Your task to perform on an android device: change timer sound Image 0: 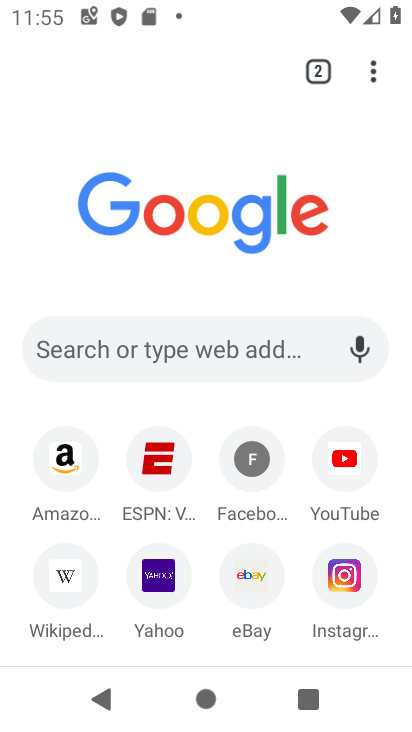
Step 0: click (382, 80)
Your task to perform on an android device: change timer sound Image 1: 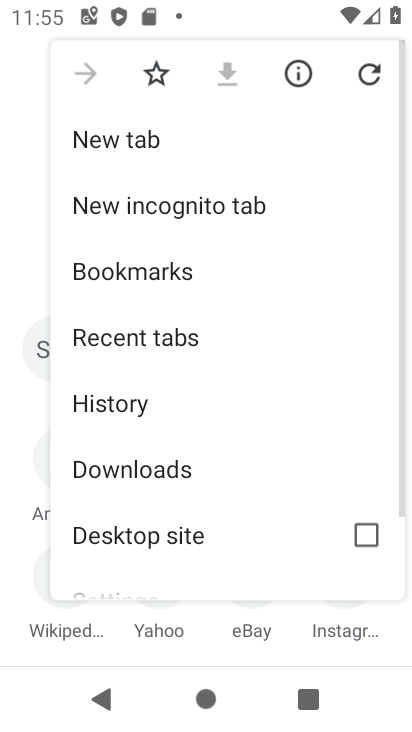
Step 1: drag from (185, 484) to (201, 213)
Your task to perform on an android device: change timer sound Image 2: 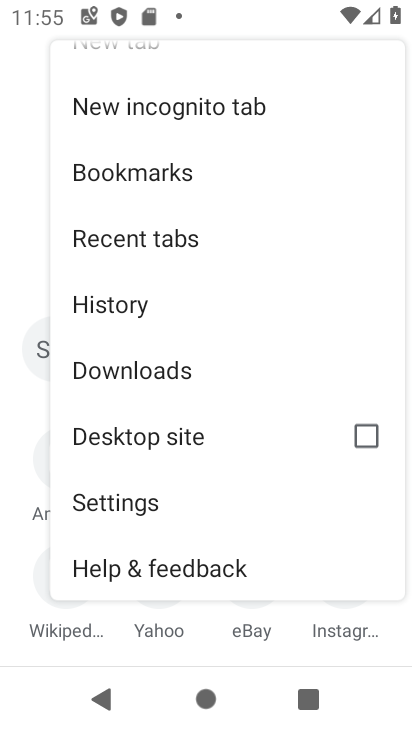
Step 2: click (199, 503)
Your task to perform on an android device: change timer sound Image 3: 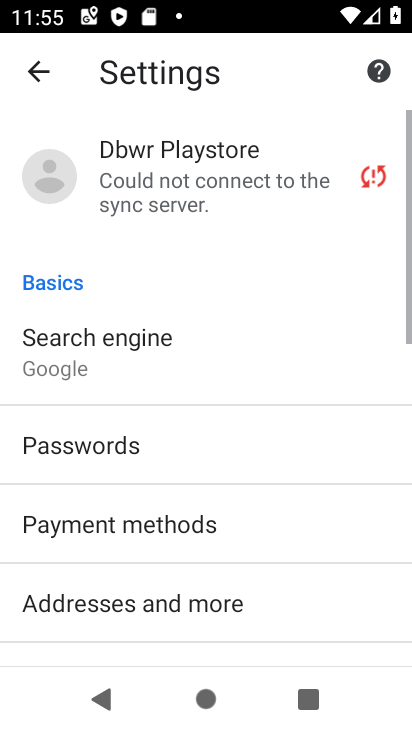
Step 3: press home button
Your task to perform on an android device: change timer sound Image 4: 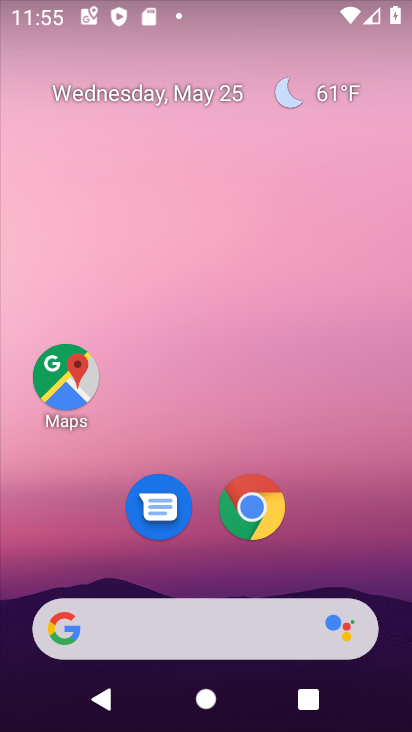
Step 4: drag from (370, 555) to (372, 208)
Your task to perform on an android device: change timer sound Image 5: 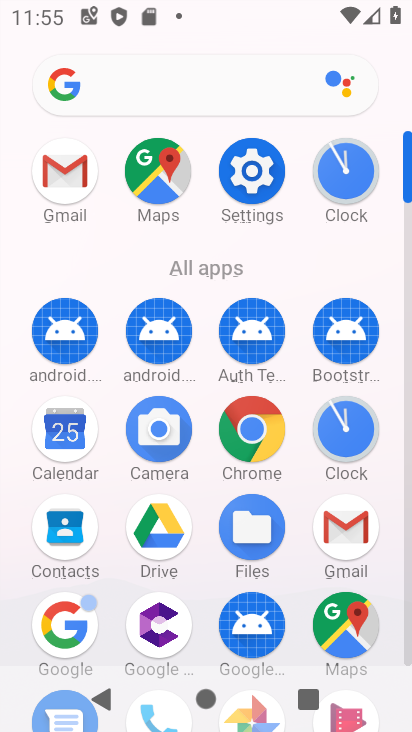
Step 5: click (242, 192)
Your task to perform on an android device: change timer sound Image 6: 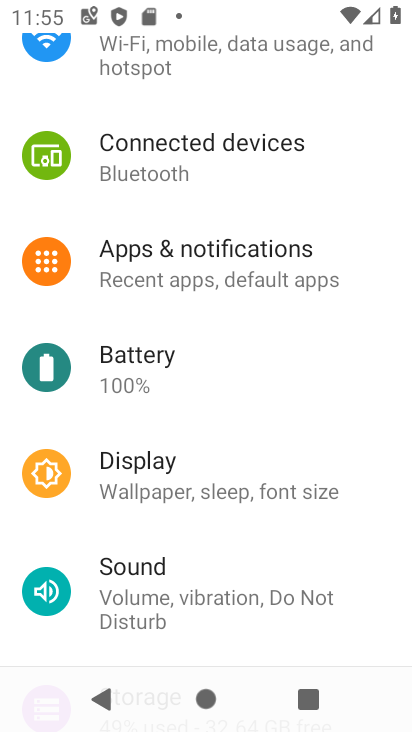
Step 6: task complete